Your task to perform on an android device: Go to battery settings Image 0: 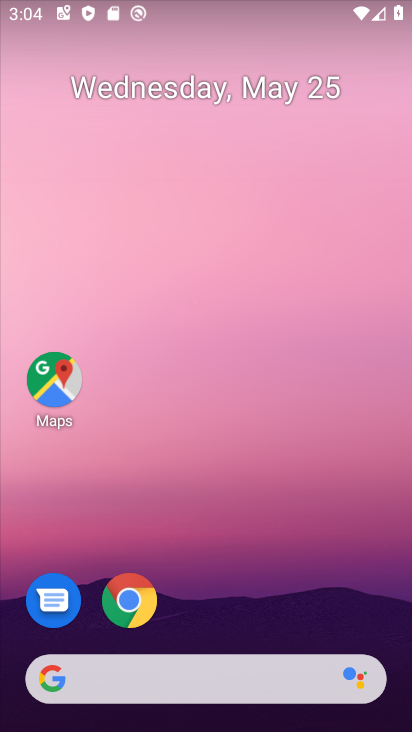
Step 0: press home button
Your task to perform on an android device: Go to battery settings Image 1: 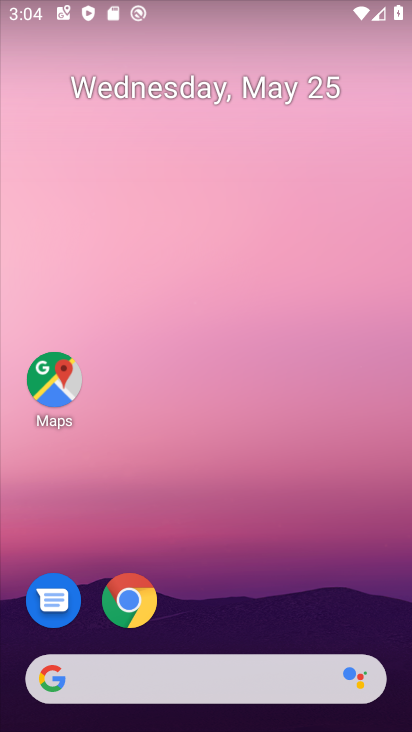
Step 1: drag from (52, 487) to (227, 195)
Your task to perform on an android device: Go to battery settings Image 2: 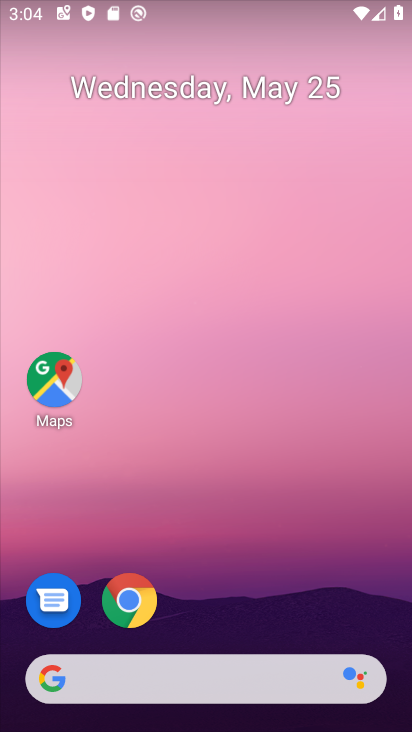
Step 2: drag from (70, 513) to (318, 136)
Your task to perform on an android device: Go to battery settings Image 3: 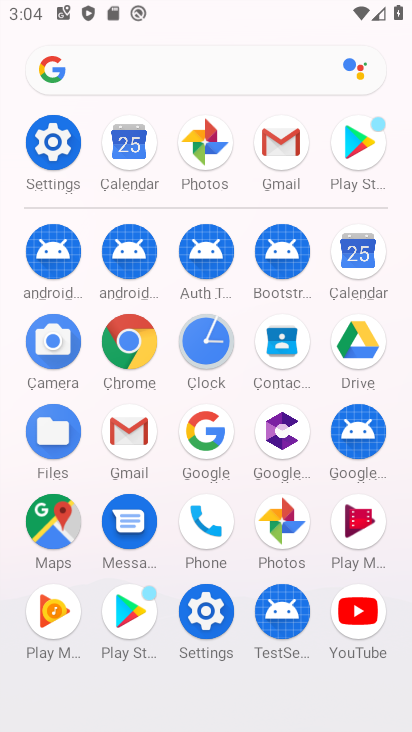
Step 3: click (56, 153)
Your task to perform on an android device: Go to battery settings Image 4: 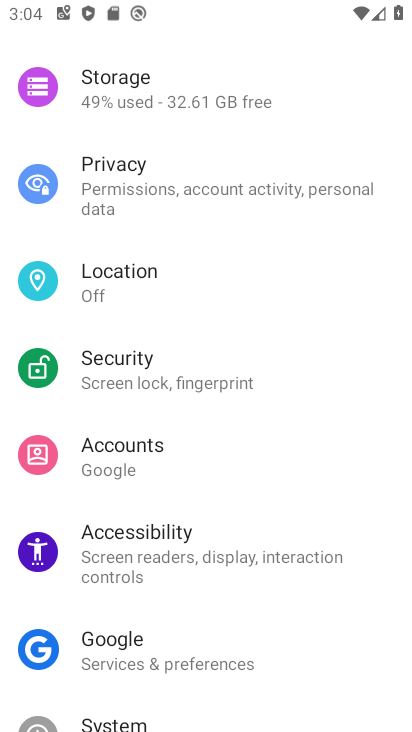
Step 4: drag from (215, 147) to (181, 618)
Your task to perform on an android device: Go to battery settings Image 5: 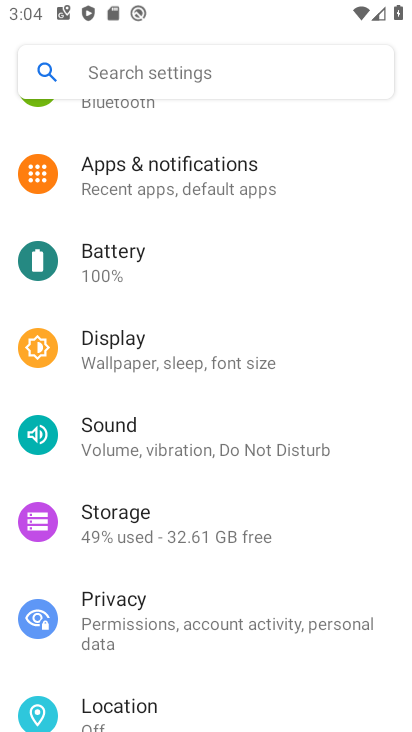
Step 5: click (126, 259)
Your task to perform on an android device: Go to battery settings Image 6: 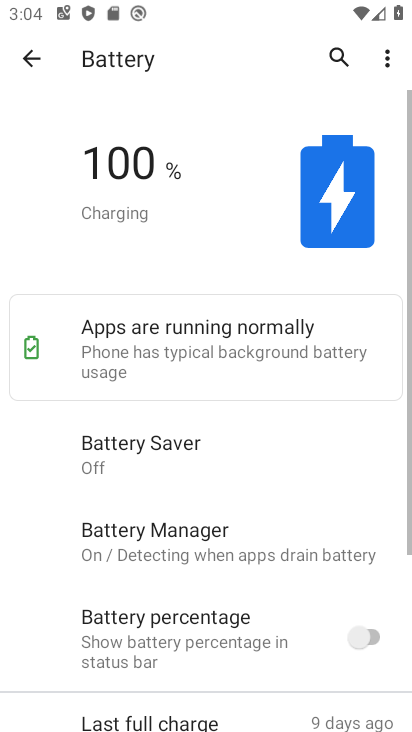
Step 6: task complete